Your task to perform on an android device: What is the news today? Image 0: 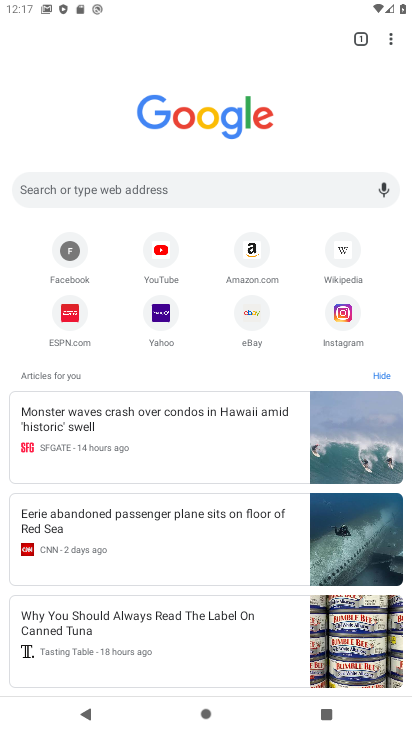
Step 0: press home button
Your task to perform on an android device: What is the news today? Image 1: 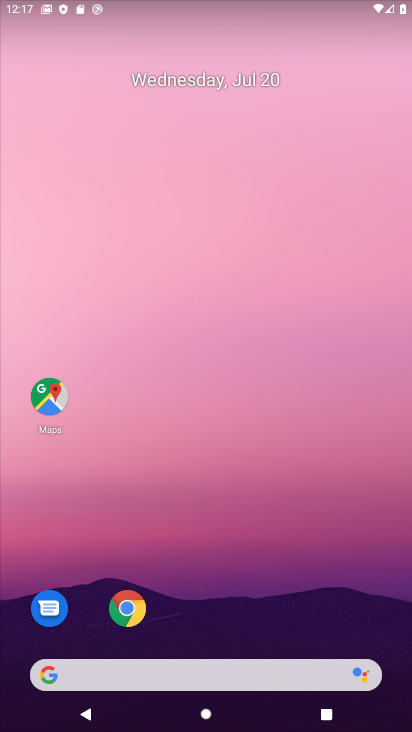
Step 1: drag from (159, 611) to (159, 238)
Your task to perform on an android device: What is the news today? Image 2: 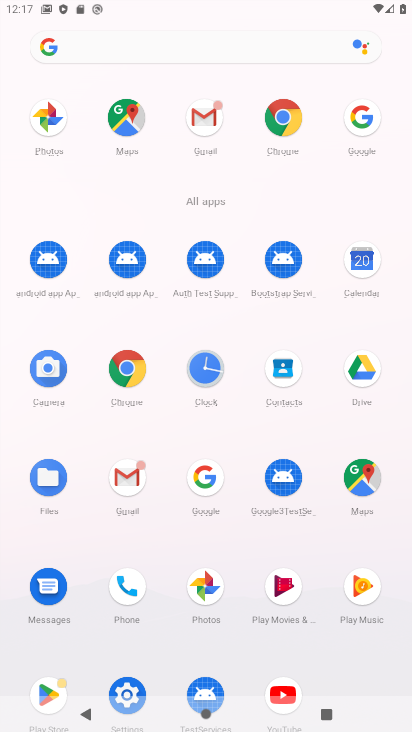
Step 2: click (209, 485)
Your task to perform on an android device: What is the news today? Image 3: 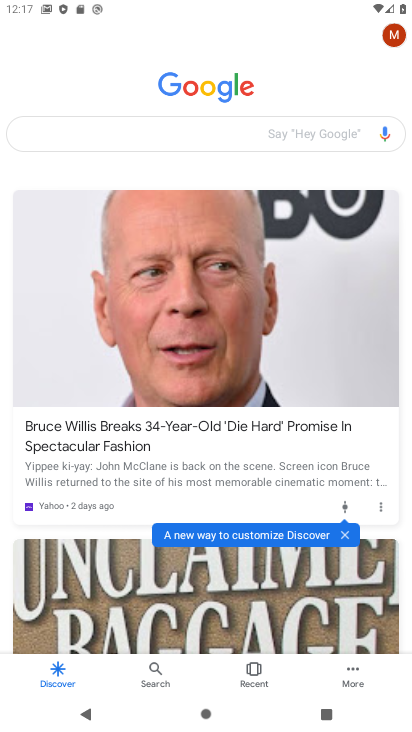
Step 3: click (155, 140)
Your task to perform on an android device: What is the news today? Image 4: 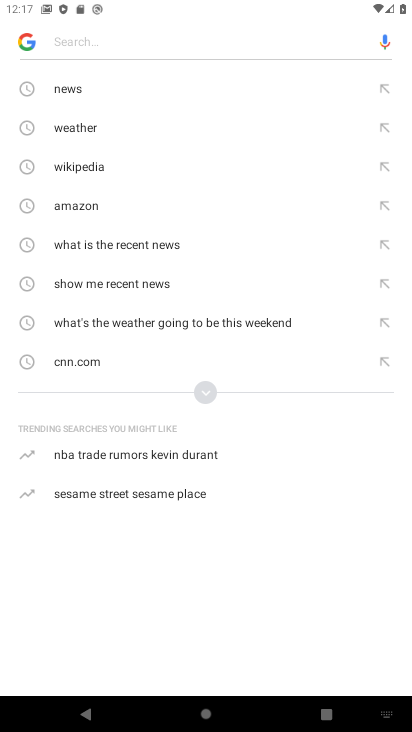
Step 4: click (68, 90)
Your task to perform on an android device: What is the news today? Image 5: 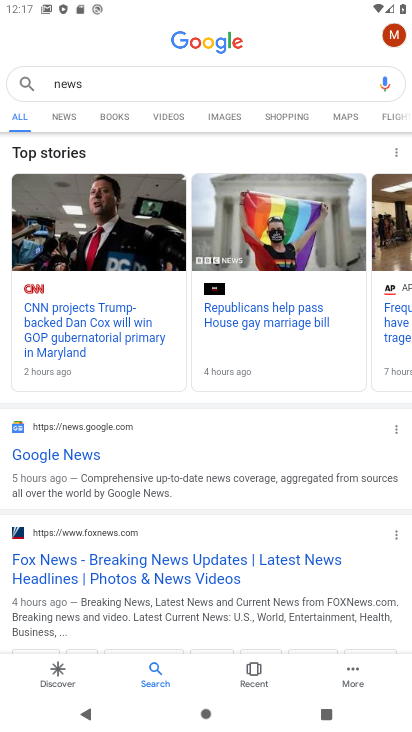
Step 5: task complete